Your task to perform on an android device: Clear the cart on walmart. Image 0: 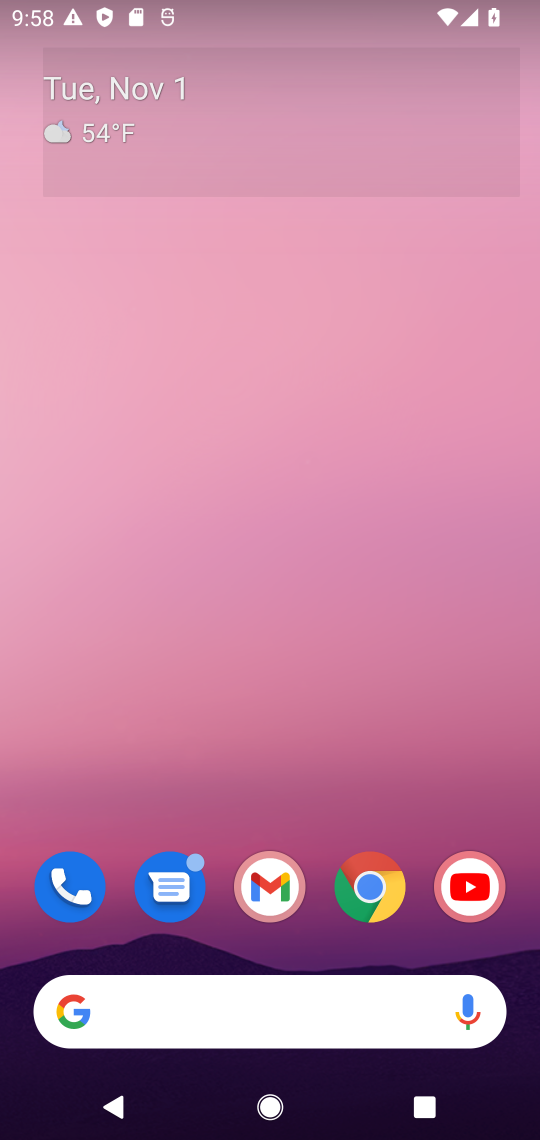
Step 0: drag from (287, 927) to (295, 110)
Your task to perform on an android device: Clear the cart on walmart. Image 1: 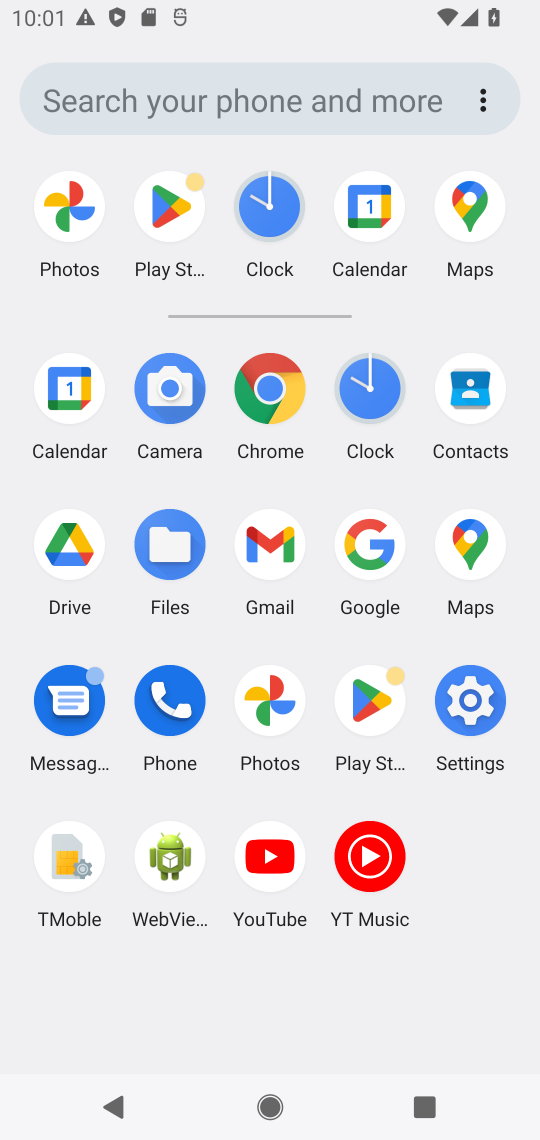
Step 1: click (382, 531)
Your task to perform on an android device: Clear the cart on walmart. Image 2: 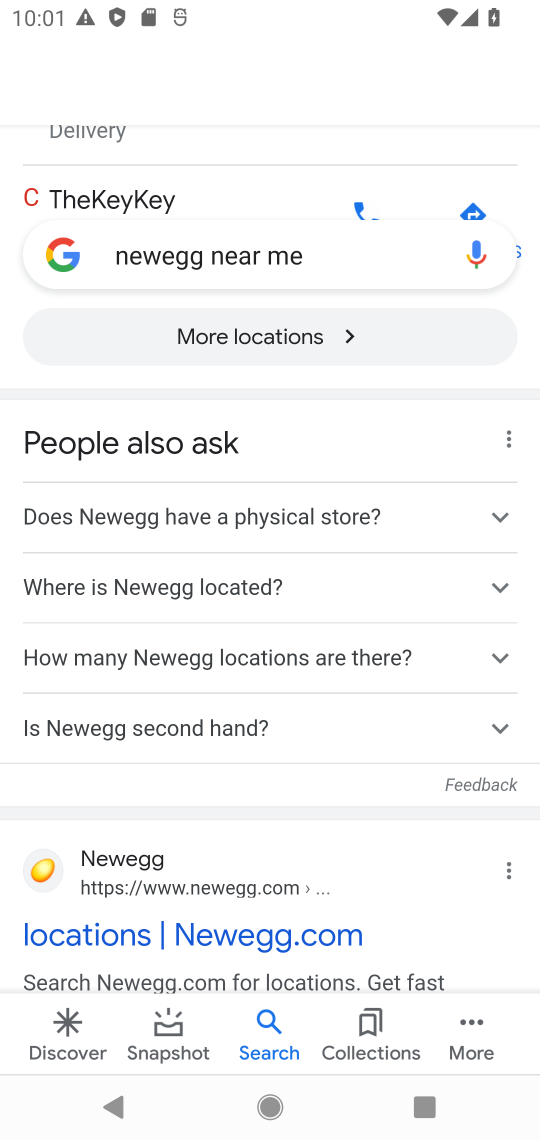
Step 2: click (299, 245)
Your task to perform on an android device: Clear the cart on walmart. Image 3: 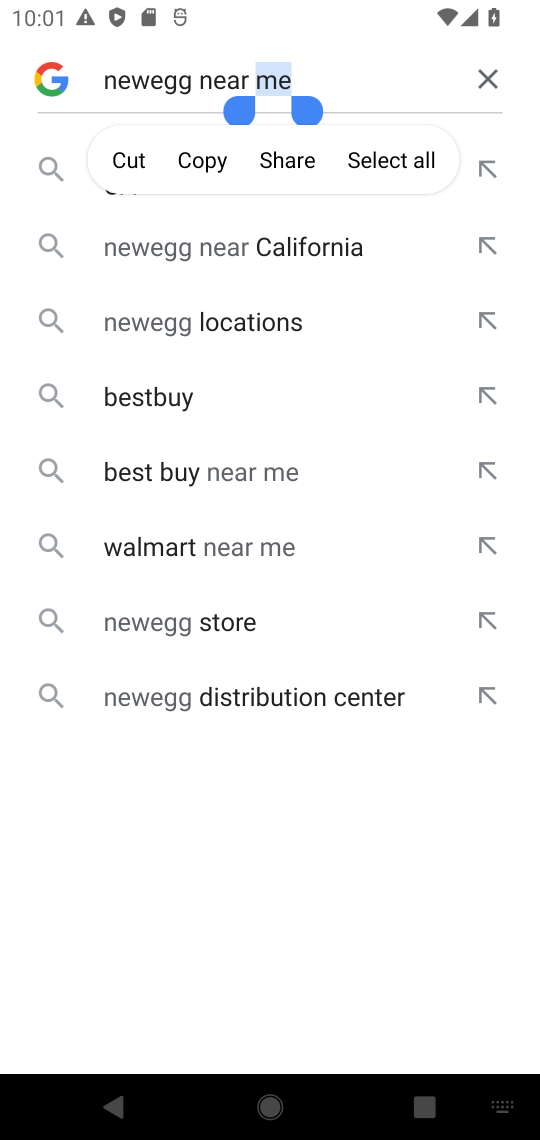
Step 3: click (485, 75)
Your task to perform on an android device: Clear the cart on walmart. Image 4: 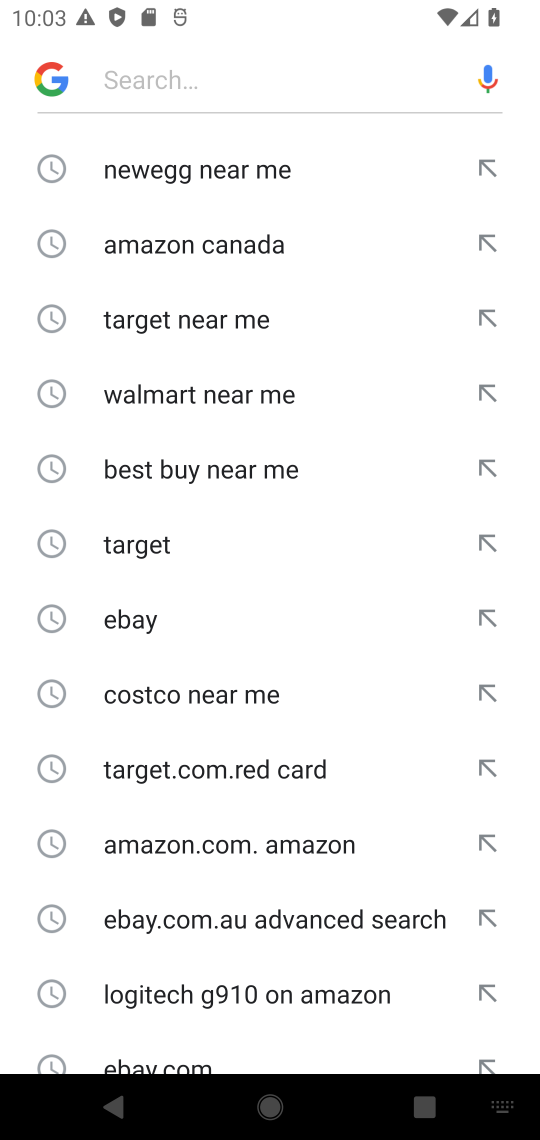
Step 4: click (147, 67)
Your task to perform on an android device: Clear the cart on walmart. Image 5: 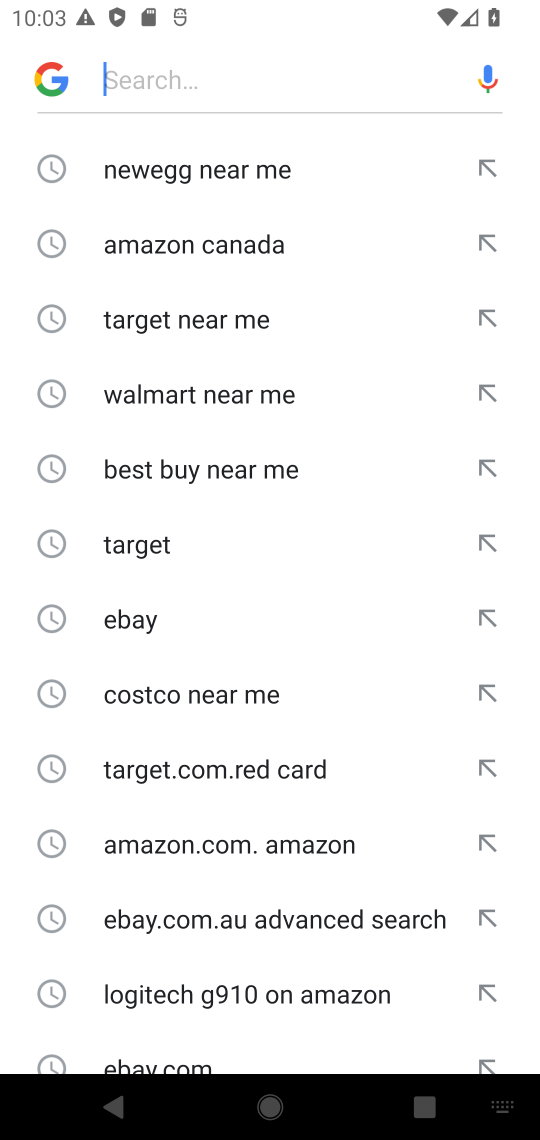
Step 5: type "walmart "
Your task to perform on an android device: Clear the cart on walmart. Image 6: 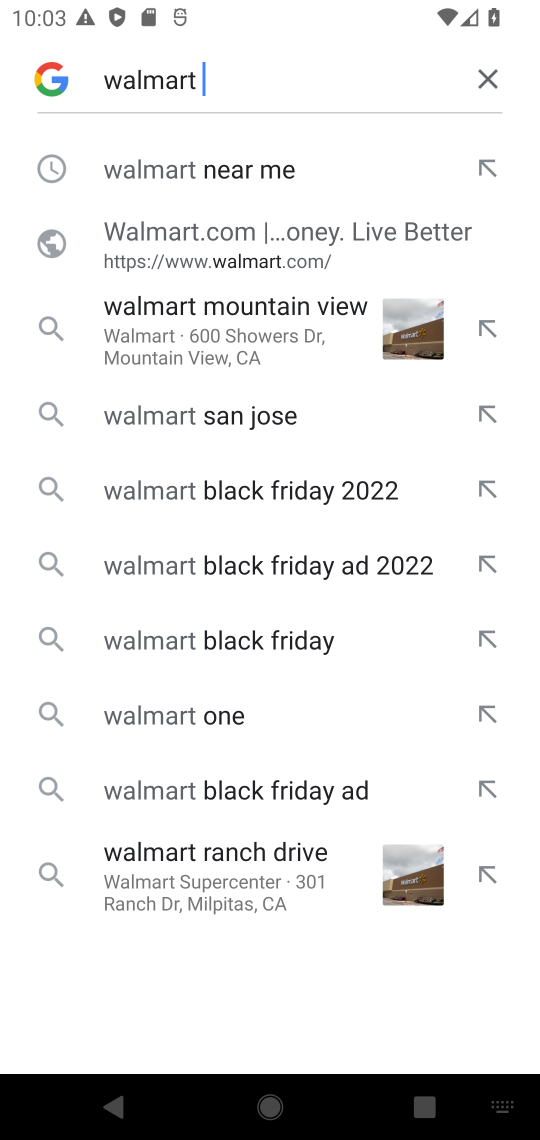
Step 6: click (280, 159)
Your task to perform on an android device: Clear the cart on walmart. Image 7: 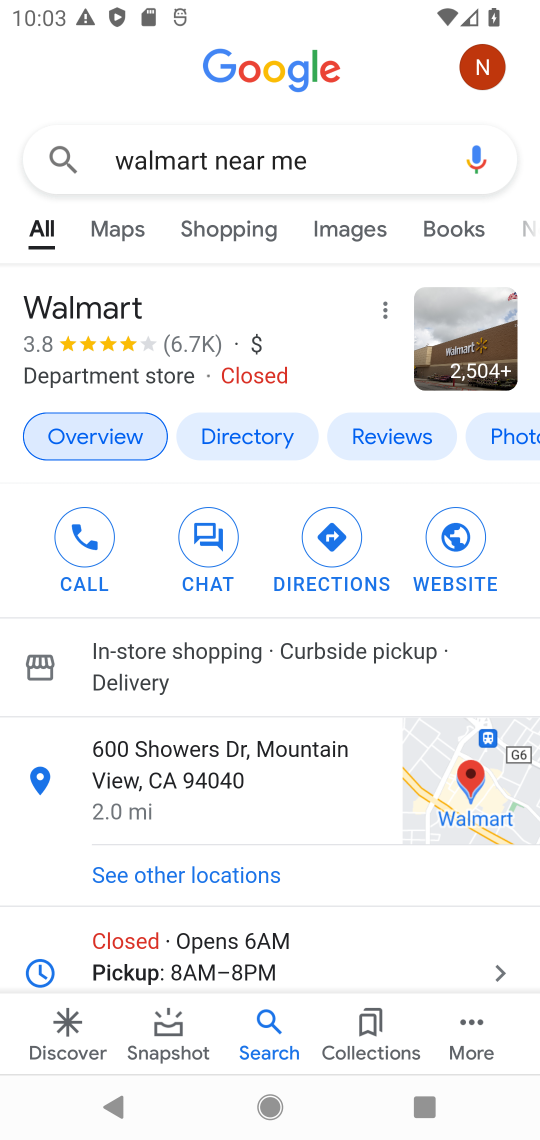
Step 7: drag from (210, 870) to (252, 364)
Your task to perform on an android device: Clear the cart on walmart. Image 8: 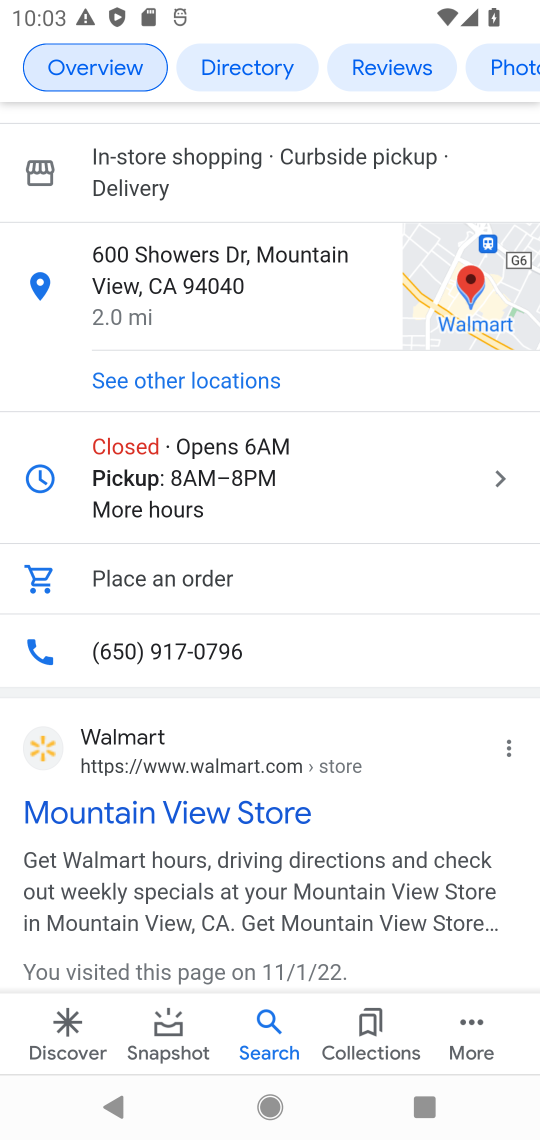
Step 8: click (105, 817)
Your task to perform on an android device: Clear the cart on walmart. Image 9: 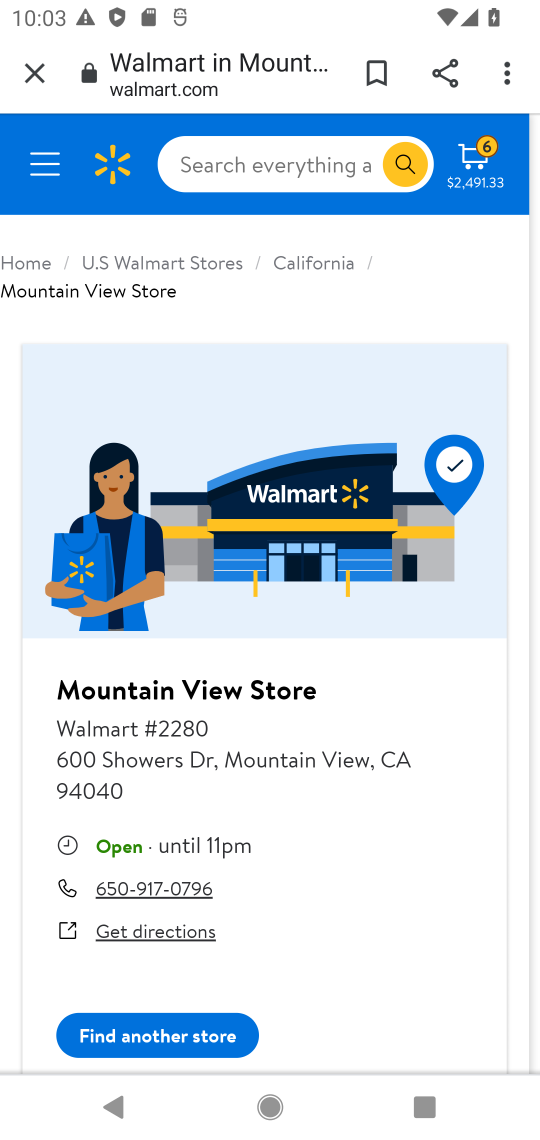
Step 9: click (475, 154)
Your task to perform on an android device: Clear the cart on walmart. Image 10: 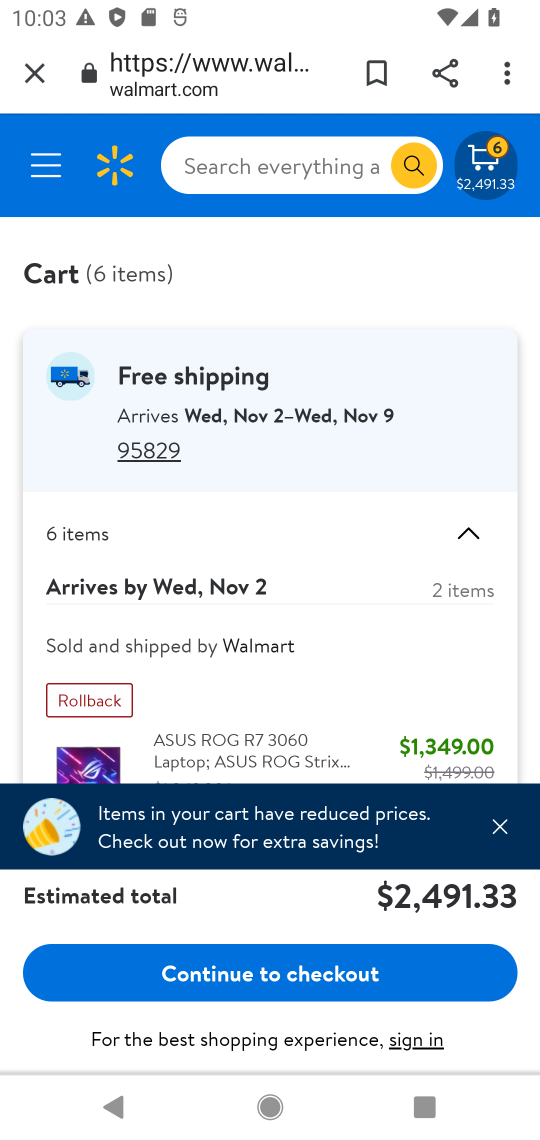
Step 10: click (502, 833)
Your task to perform on an android device: Clear the cart on walmart. Image 11: 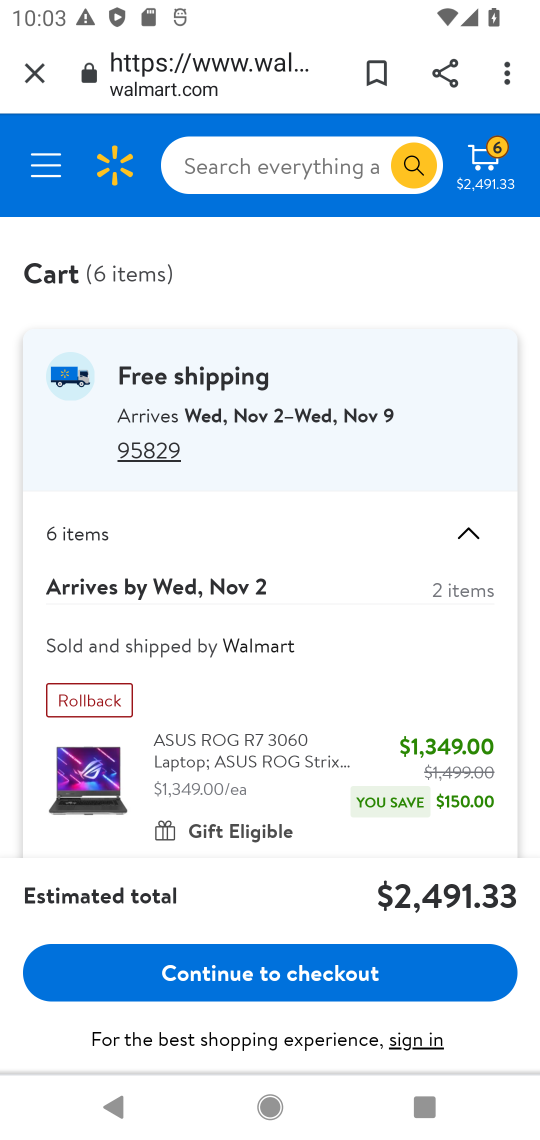
Step 11: drag from (420, 885) to (381, 375)
Your task to perform on an android device: Clear the cart on walmart. Image 12: 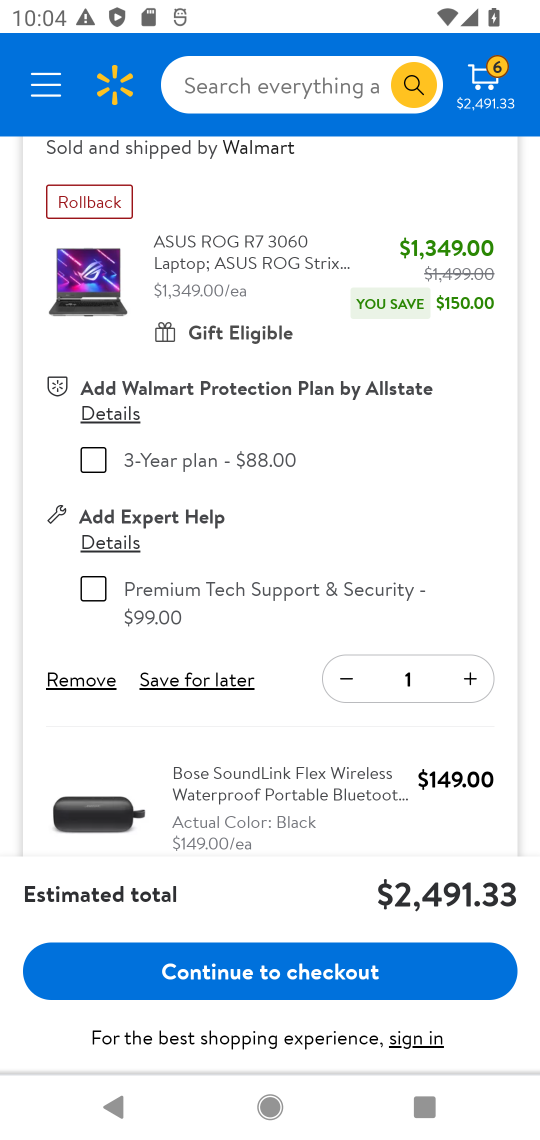
Step 12: click (94, 684)
Your task to perform on an android device: Clear the cart on walmart. Image 13: 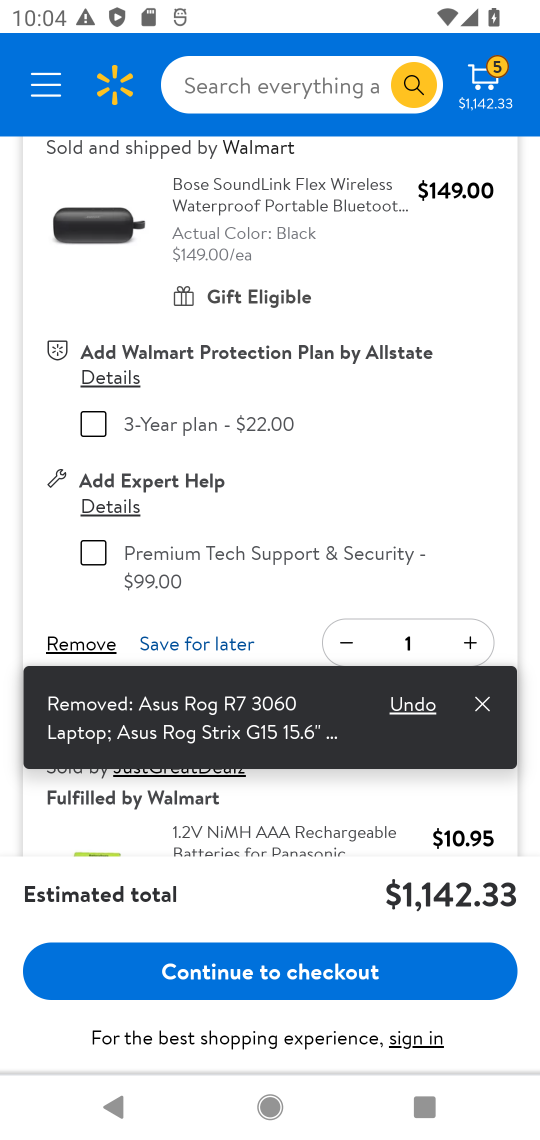
Step 13: click (61, 639)
Your task to perform on an android device: Clear the cart on walmart. Image 14: 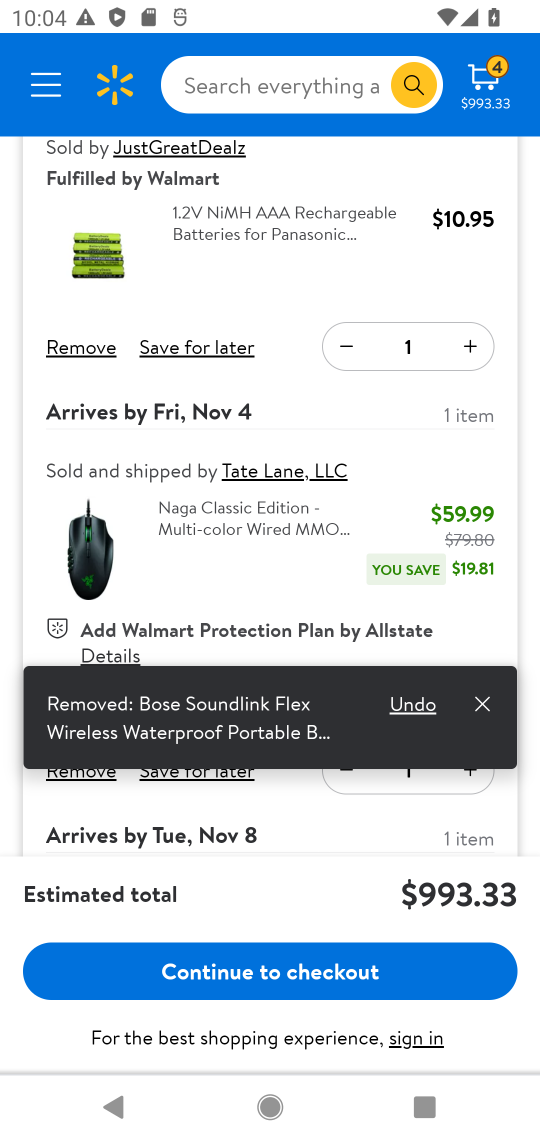
Step 14: click (60, 338)
Your task to perform on an android device: Clear the cart on walmart. Image 15: 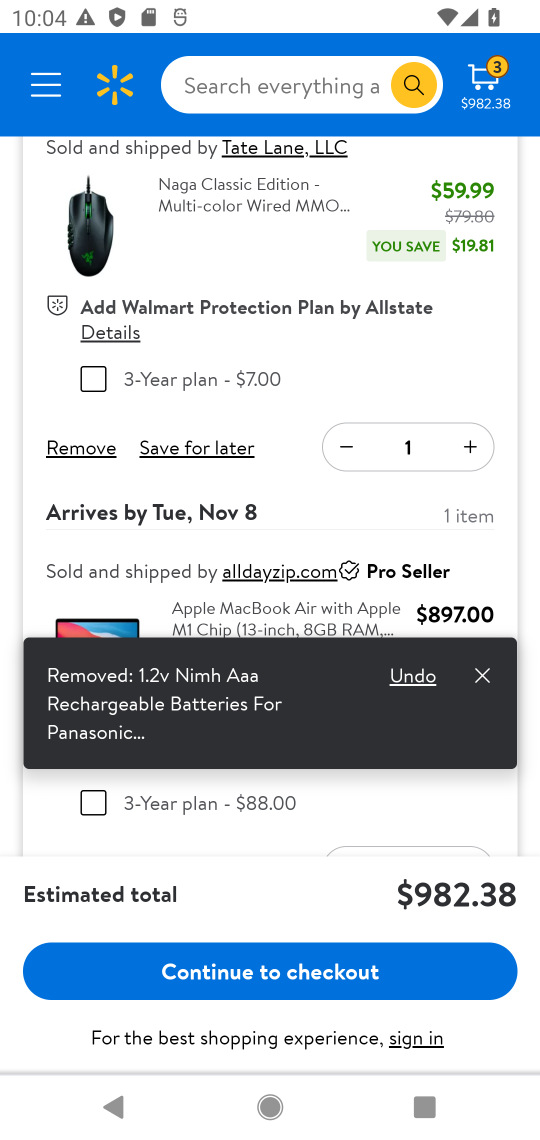
Step 15: click (79, 450)
Your task to perform on an android device: Clear the cart on walmart. Image 16: 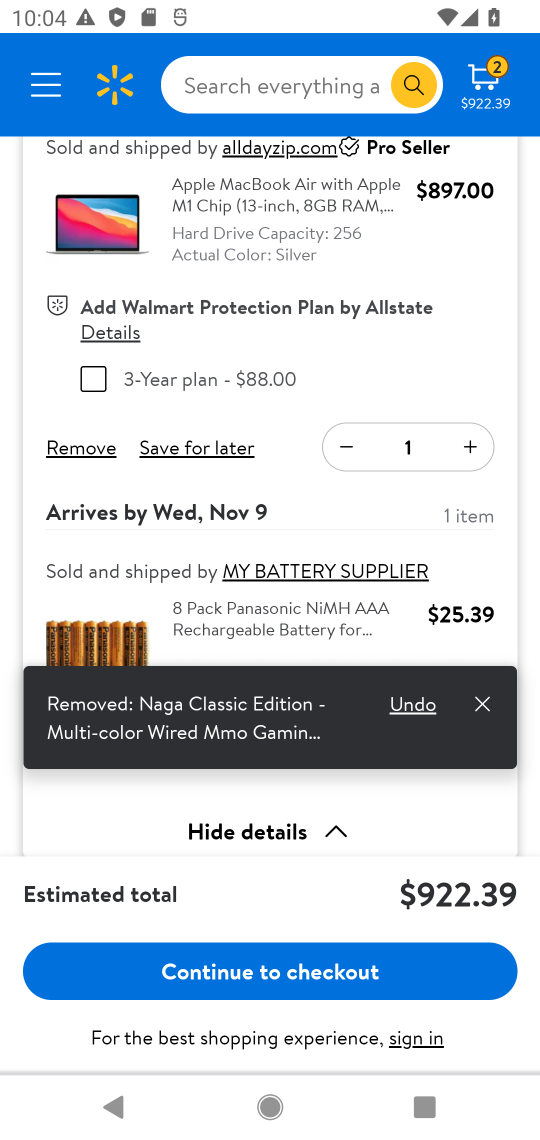
Step 16: click (79, 450)
Your task to perform on an android device: Clear the cart on walmart. Image 17: 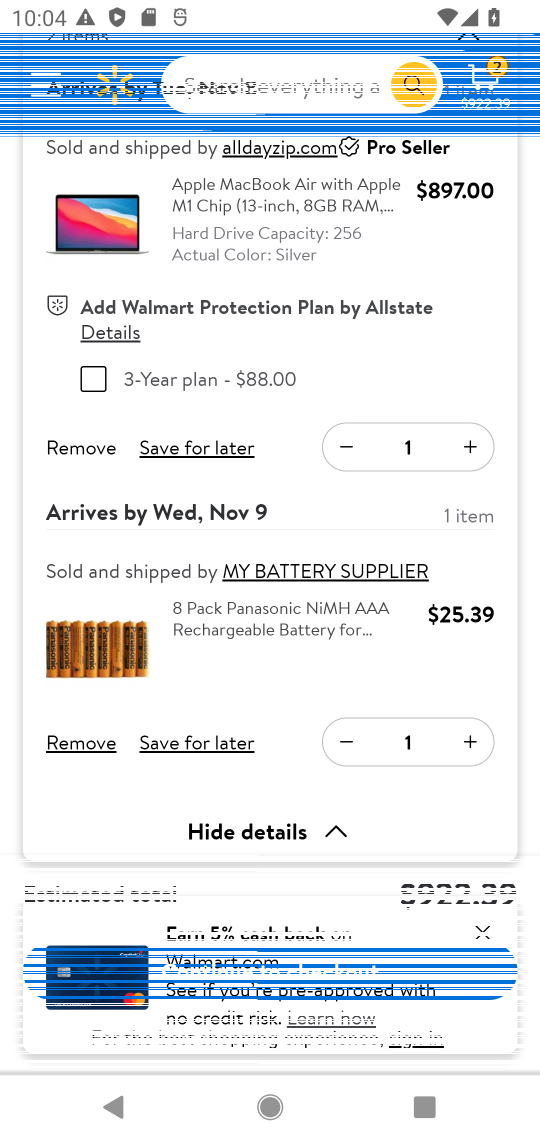
Step 17: click (79, 450)
Your task to perform on an android device: Clear the cart on walmart. Image 18: 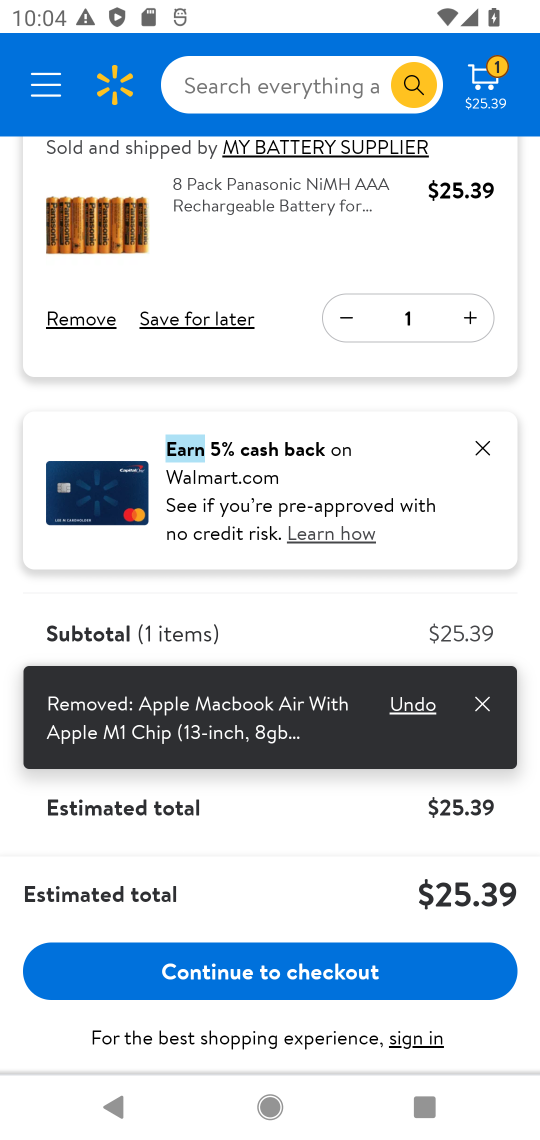
Step 18: click (79, 450)
Your task to perform on an android device: Clear the cart on walmart. Image 19: 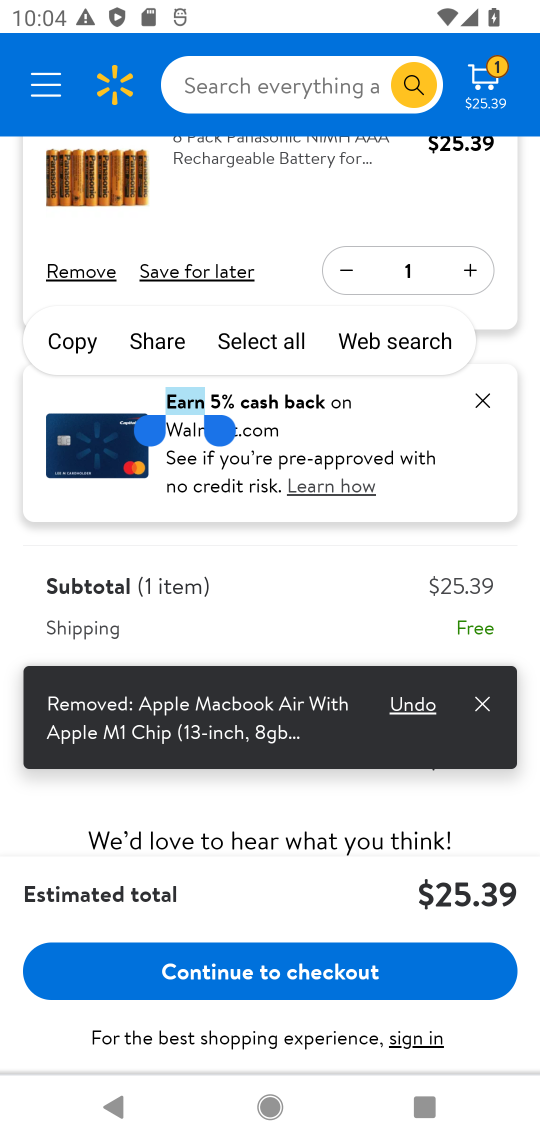
Step 19: click (79, 272)
Your task to perform on an android device: Clear the cart on walmart. Image 20: 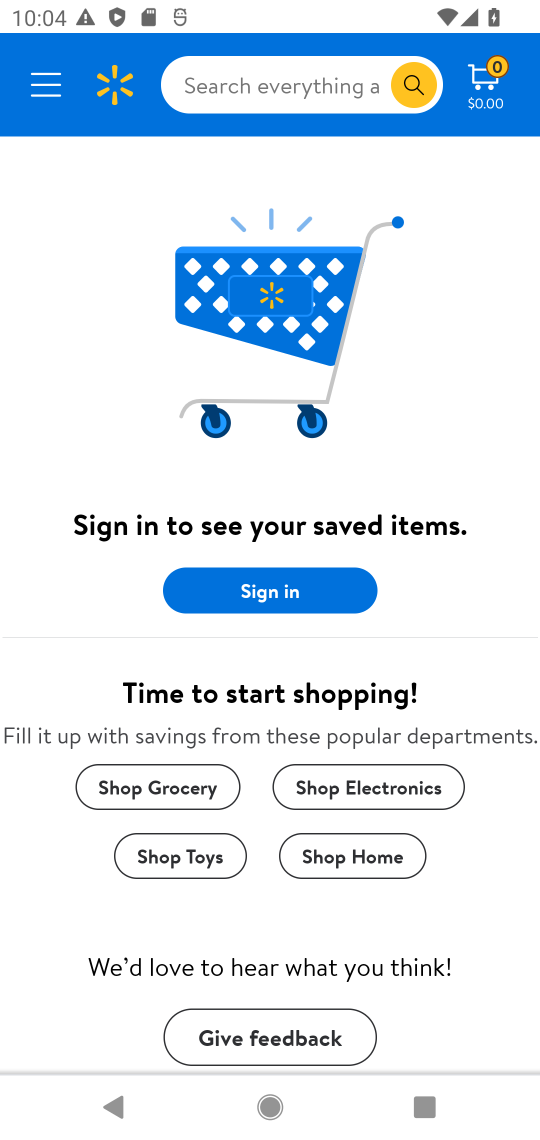
Step 20: task complete